Your task to perform on an android device: Go to battery settings Image 0: 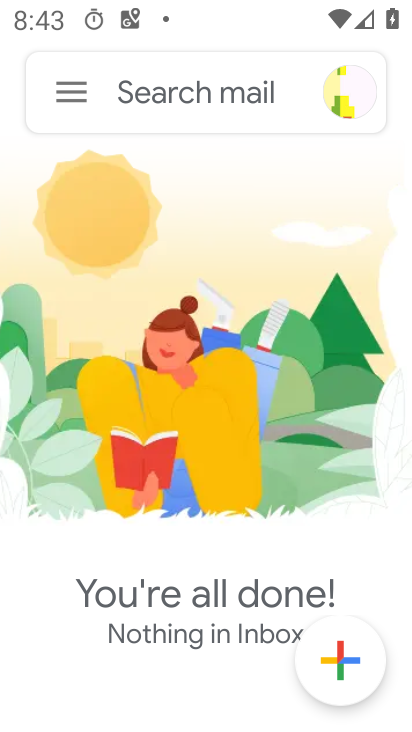
Step 0: press home button
Your task to perform on an android device: Go to battery settings Image 1: 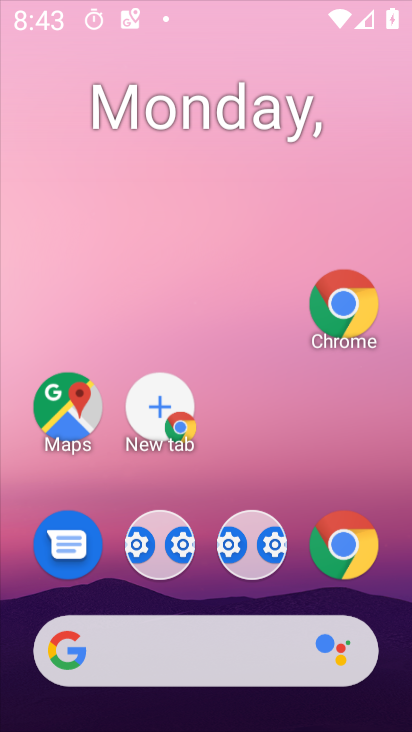
Step 1: press home button
Your task to perform on an android device: Go to battery settings Image 2: 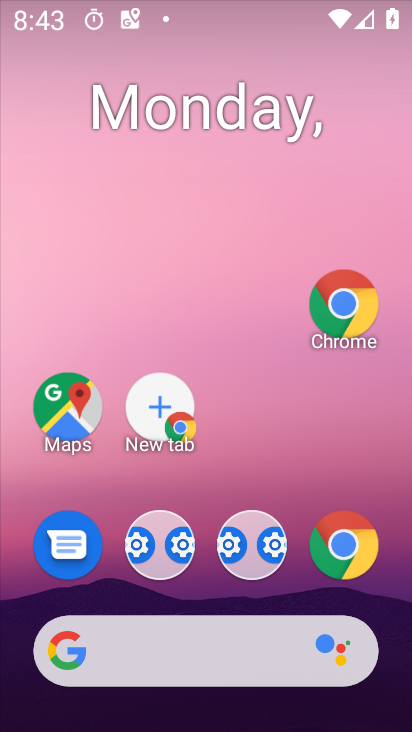
Step 2: press home button
Your task to perform on an android device: Go to battery settings Image 3: 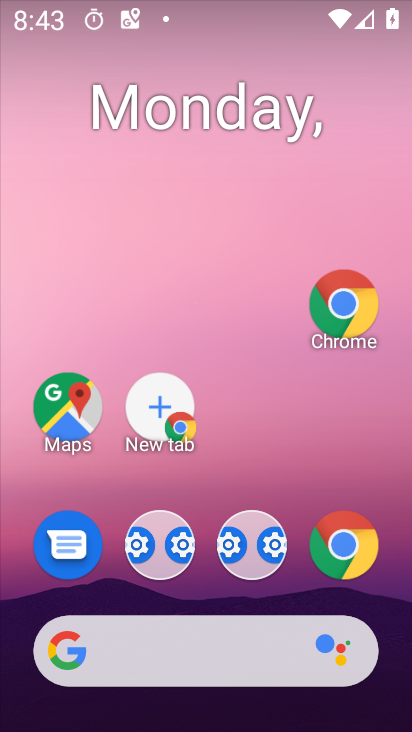
Step 3: press home button
Your task to perform on an android device: Go to battery settings Image 4: 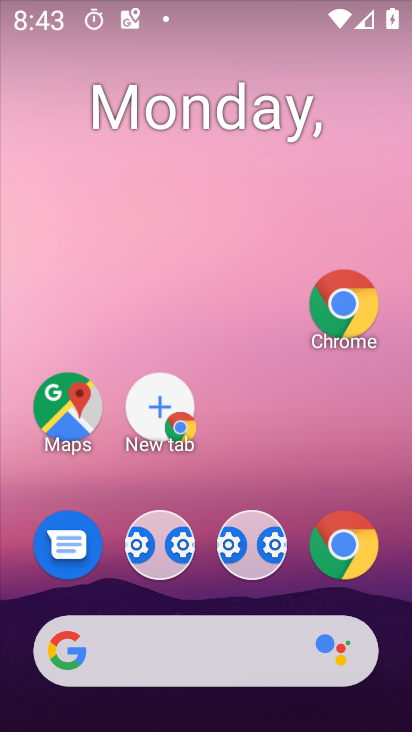
Step 4: drag from (378, 599) to (134, 118)
Your task to perform on an android device: Go to battery settings Image 5: 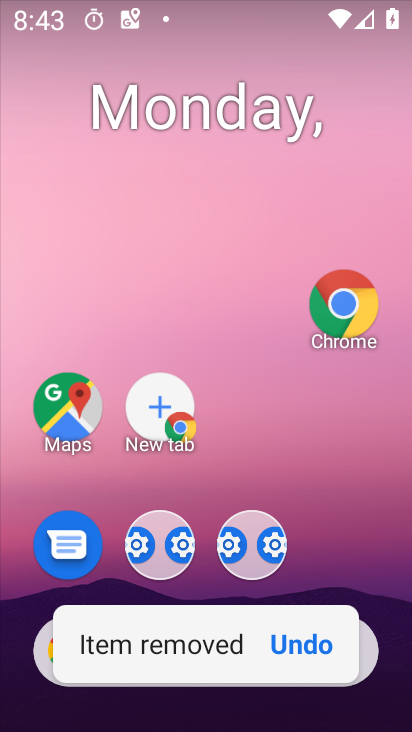
Step 5: drag from (366, 588) to (207, 126)
Your task to perform on an android device: Go to battery settings Image 6: 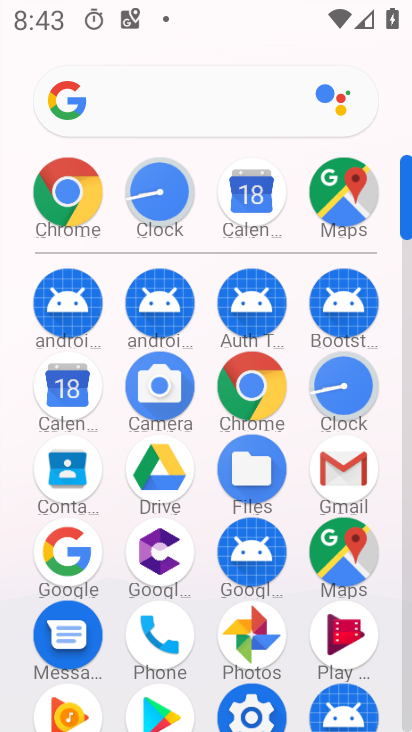
Step 6: click (386, 621)
Your task to perform on an android device: Go to battery settings Image 7: 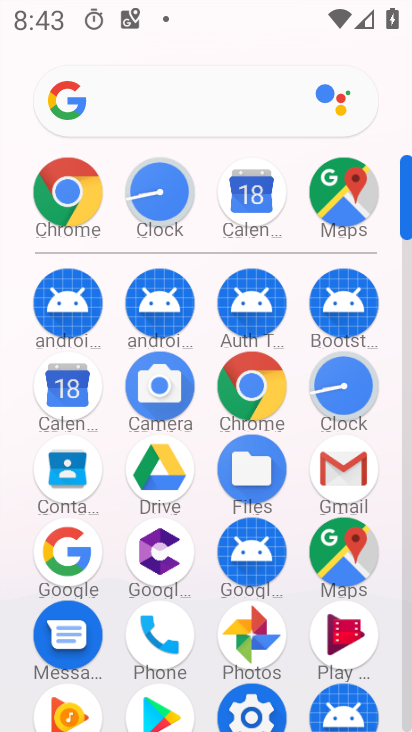
Step 7: click (386, 652)
Your task to perform on an android device: Go to battery settings Image 8: 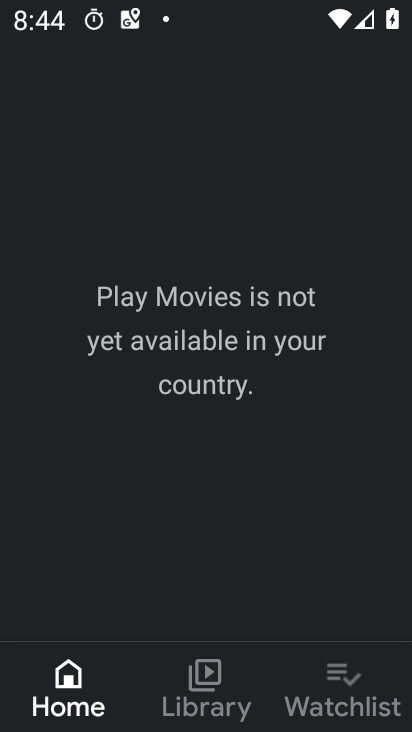
Step 8: press home button
Your task to perform on an android device: Go to battery settings Image 9: 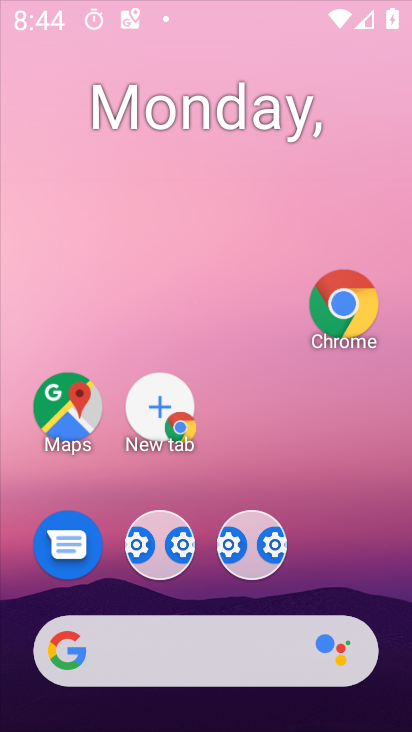
Step 9: press home button
Your task to perform on an android device: Go to battery settings Image 10: 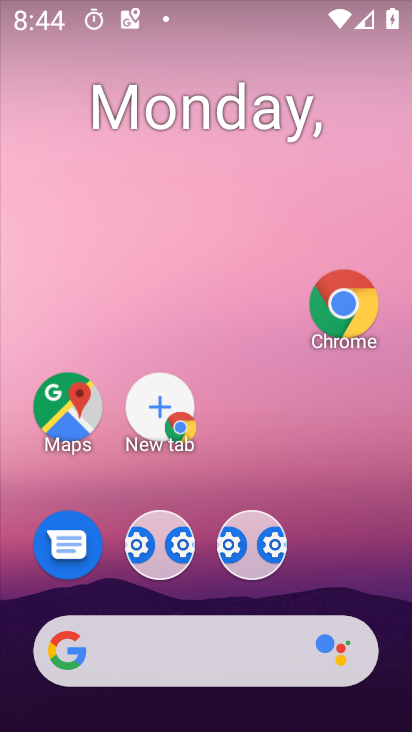
Step 10: drag from (257, 403) to (136, 52)
Your task to perform on an android device: Go to battery settings Image 11: 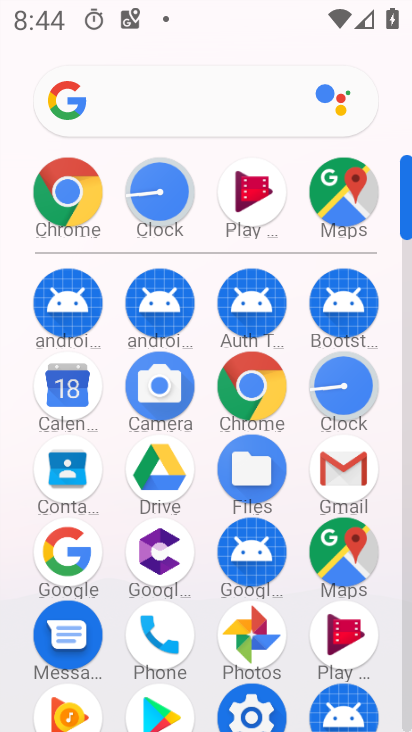
Step 11: drag from (408, 656) to (404, 697)
Your task to perform on an android device: Go to battery settings Image 12: 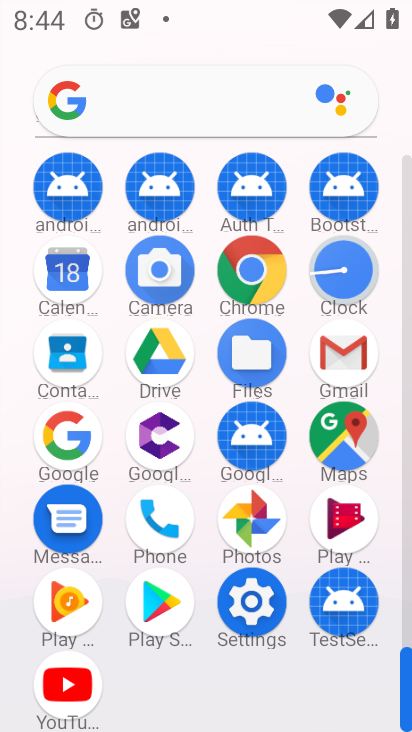
Step 12: click (234, 599)
Your task to perform on an android device: Go to battery settings Image 13: 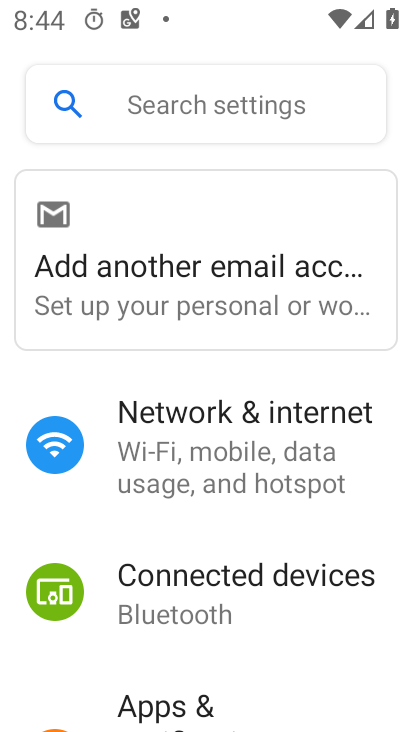
Step 13: drag from (229, 573) to (199, 250)
Your task to perform on an android device: Go to battery settings Image 14: 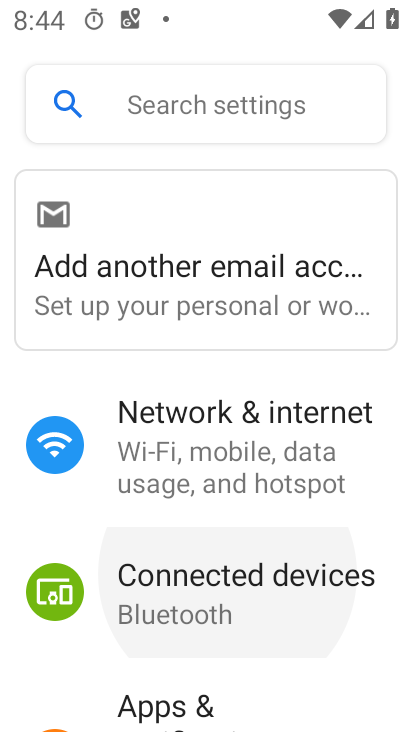
Step 14: drag from (245, 602) to (196, 160)
Your task to perform on an android device: Go to battery settings Image 15: 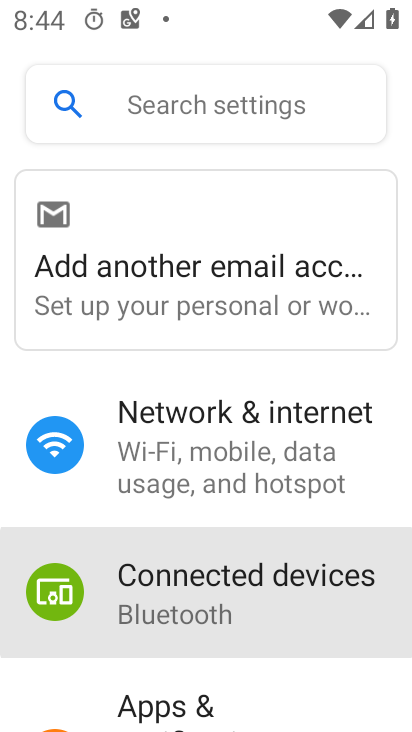
Step 15: drag from (252, 543) to (231, 104)
Your task to perform on an android device: Go to battery settings Image 16: 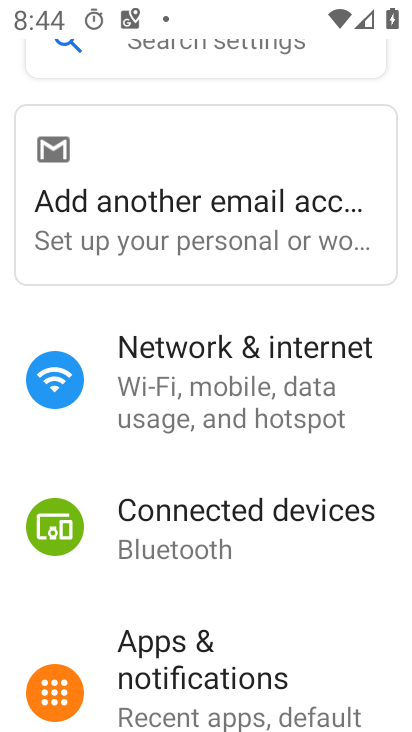
Step 16: drag from (180, 520) to (157, 36)
Your task to perform on an android device: Go to battery settings Image 17: 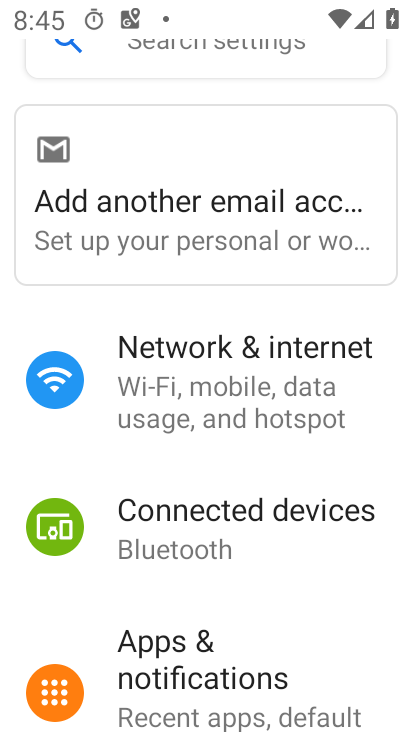
Step 17: drag from (275, 561) to (208, 212)
Your task to perform on an android device: Go to battery settings Image 18: 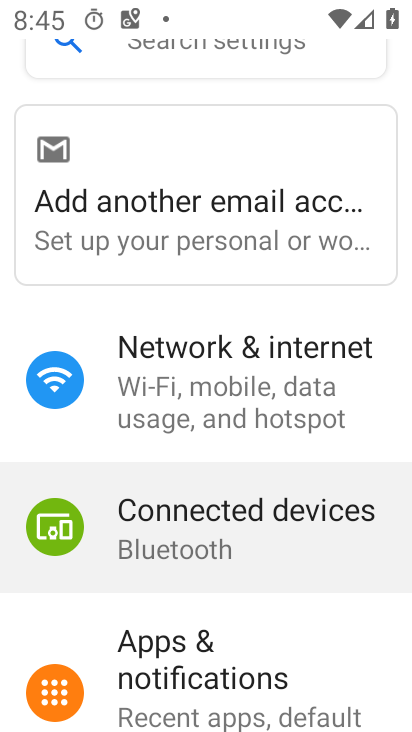
Step 18: drag from (237, 520) to (198, 130)
Your task to perform on an android device: Go to battery settings Image 19: 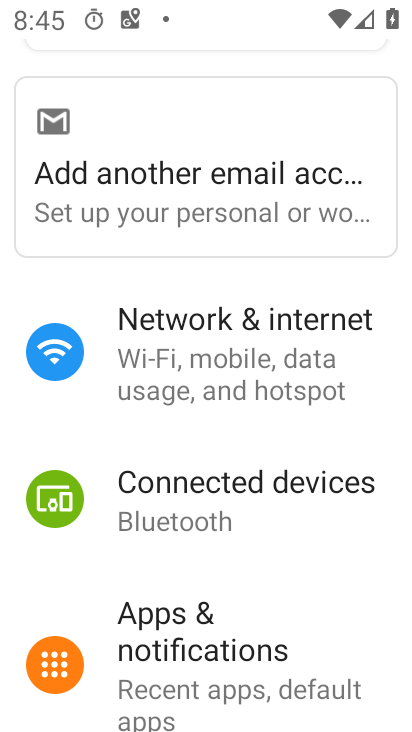
Step 19: press home button
Your task to perform on an android device: Go to battery settings Image 20: 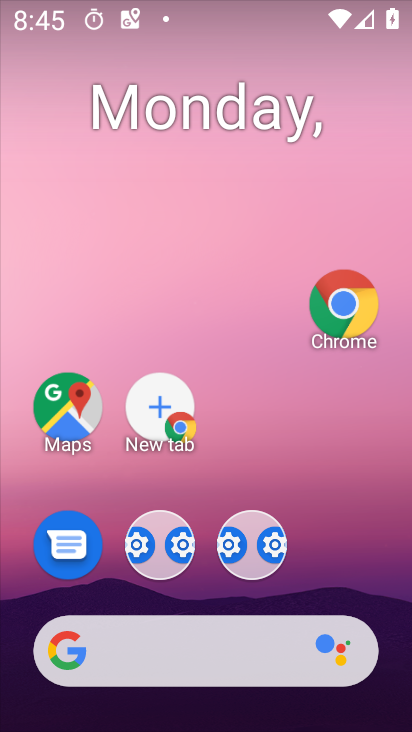
Step 20: drag from (337, 534) to (253, 1)
Your task to perform on an android device: Go to battery settings Image 21: 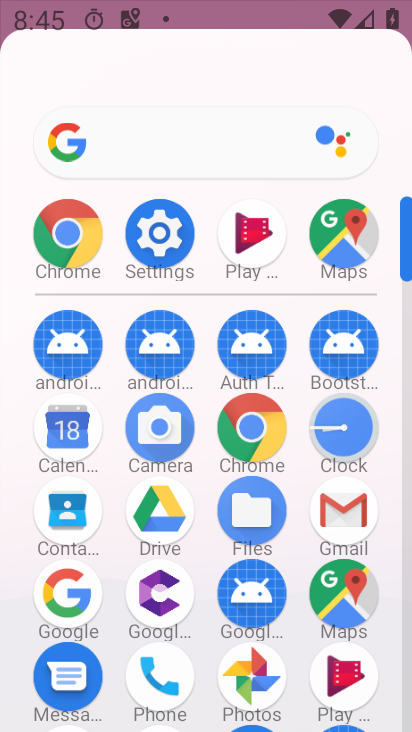
Step 21: drag from (262, 424) to (209, 110)
Your task to perform on an android device: Go to battery settings Image 22: 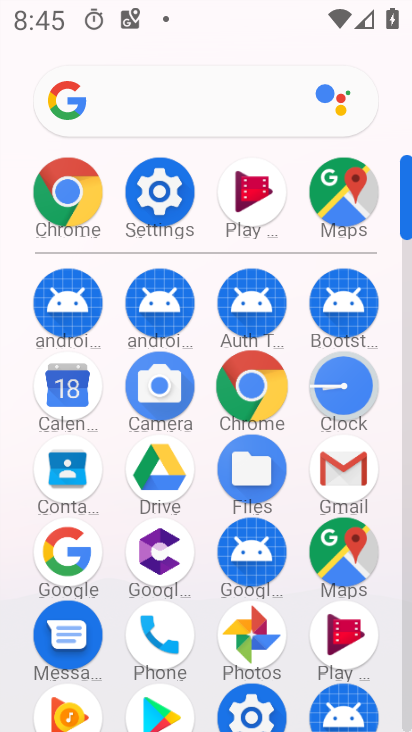
Step 22: drag from (248, 395) to (225, 98)
Your task to perform on an android device: Go to battery settings Image 23: 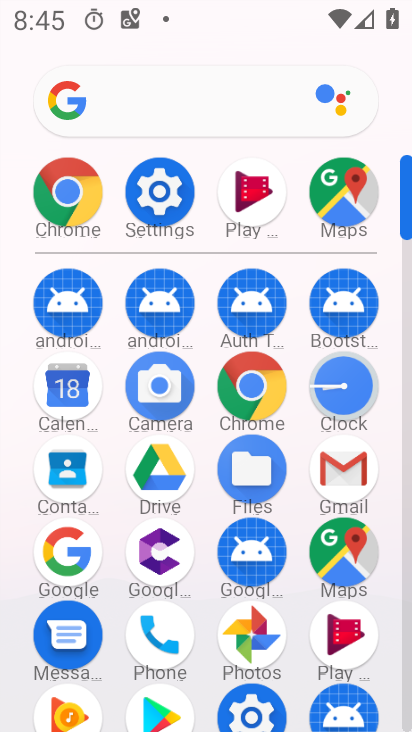
Step 23: click (139, 197)
Your task to perform on an android device: Go to battery settings Image 24: 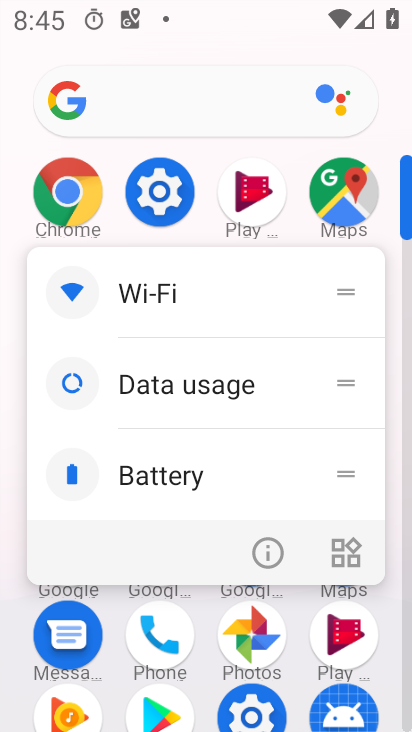
Step 24: click (169, 206)
Your task to perform on an android device: Go to battery settings Image 25: 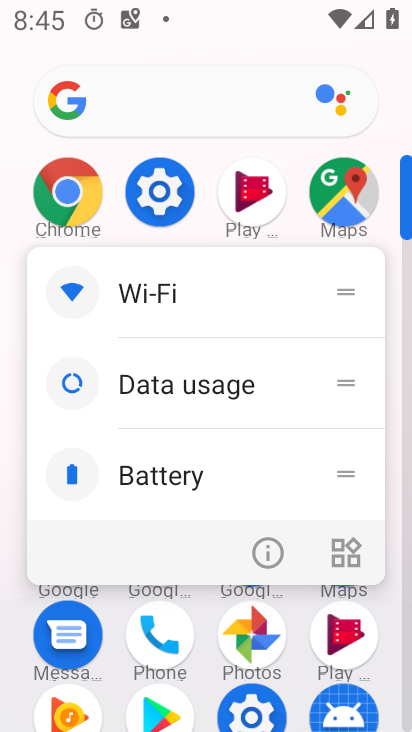
Step 25: click (163, 186)
Your task to perform on an android device: Go to battery settings Image 26: 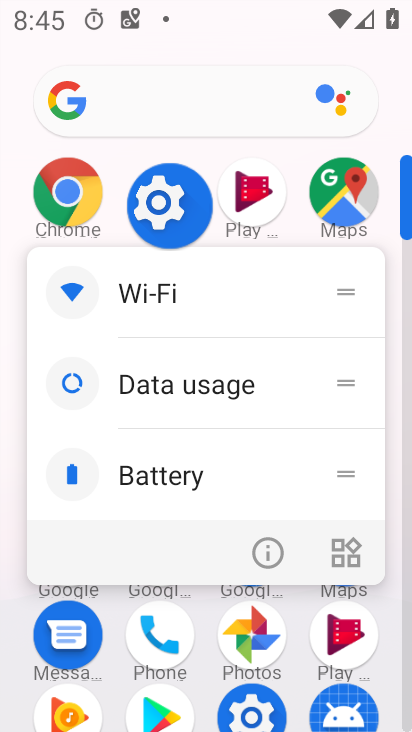
Step 26: click (182, 190)
Your task to perform on an android device: Go to battery settings Image 27: 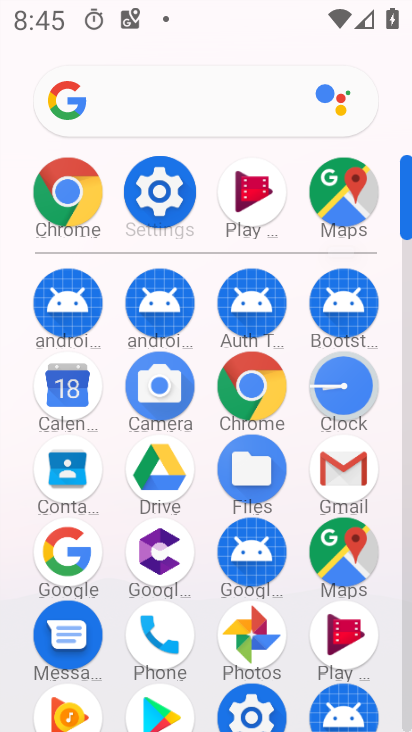
Step 27: click (174, 199)
Your task to perform on an android device: Go to battery settings Image 28: 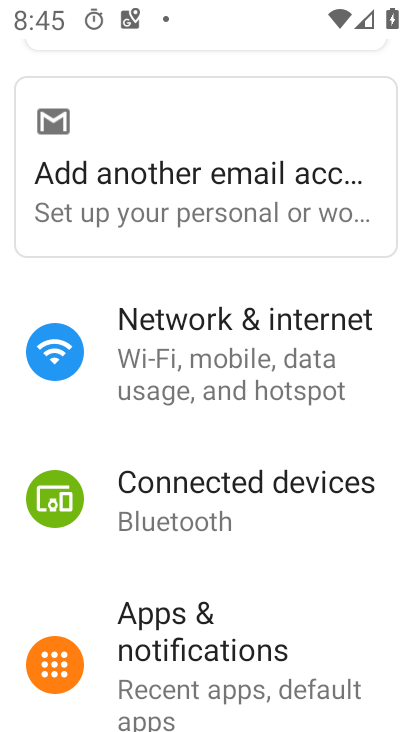
Step 28: drag from (261, 625) to (335, 168)
Your task to perform on an android device: Go to battery settings Image 29: 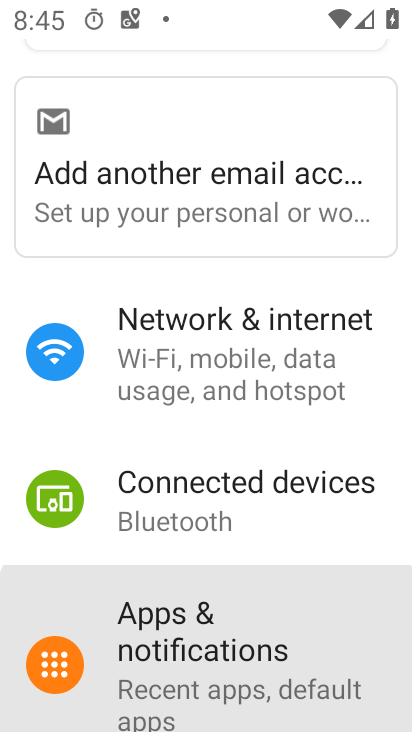
Step 29: drag from (195, 511) to (207, 167)
Your task to perform on an android device: Go to battery settings Image 30: 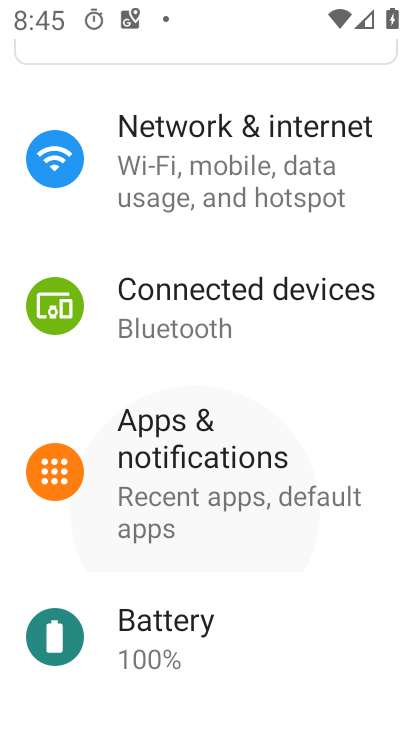
Step 30: drag from (231, 495) to (215, 142)
Your task to perform on an android device: Go to battery settings Image 31: 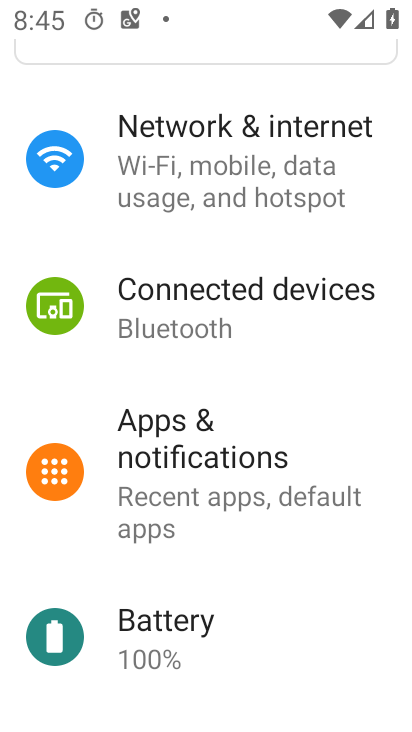
Step 31: click (159, 647)
Your task to perform on an android device: Go to battery settings Image 32: 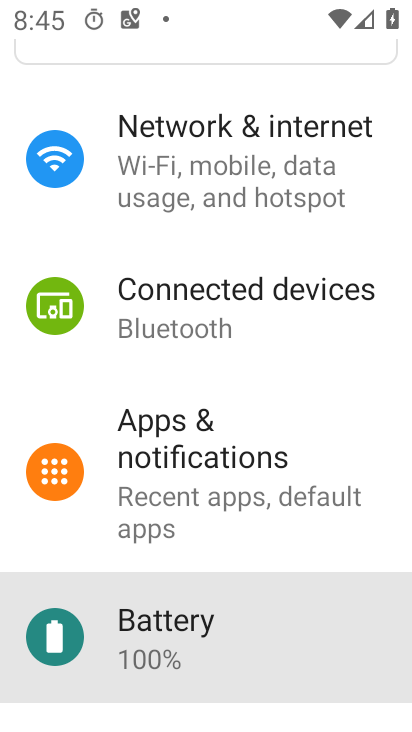
Step 32: click (159, 647)
Your task to perform on an android device: Go to battery settings Image 33: 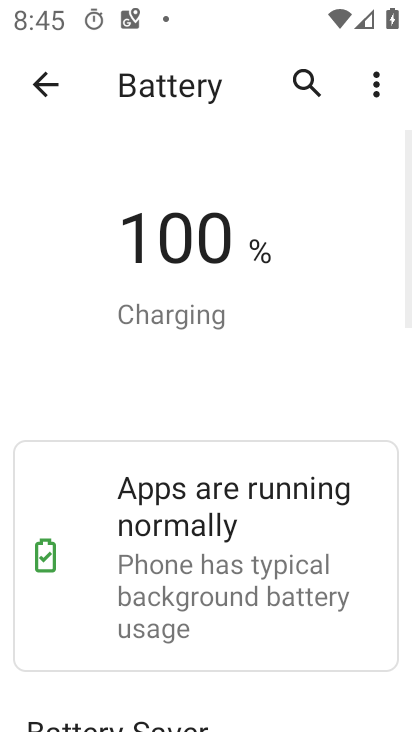
Step 33: task complete